Your task to perform on an android device: toggle sleep mode Image 0: 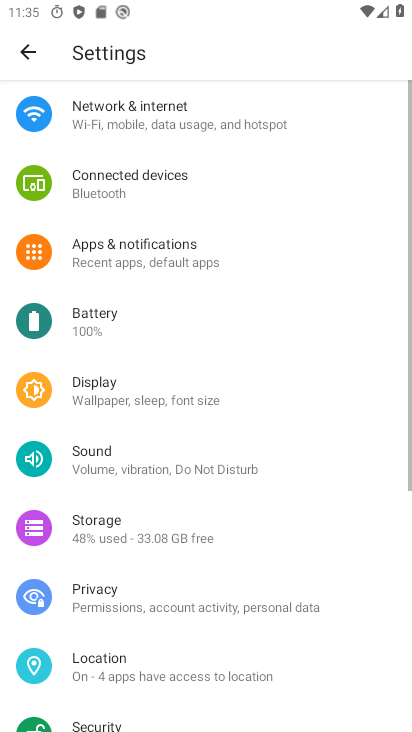
Step 0: click (172, 399)
Your task to perform on an android device: toggle sleep mode Image 1: 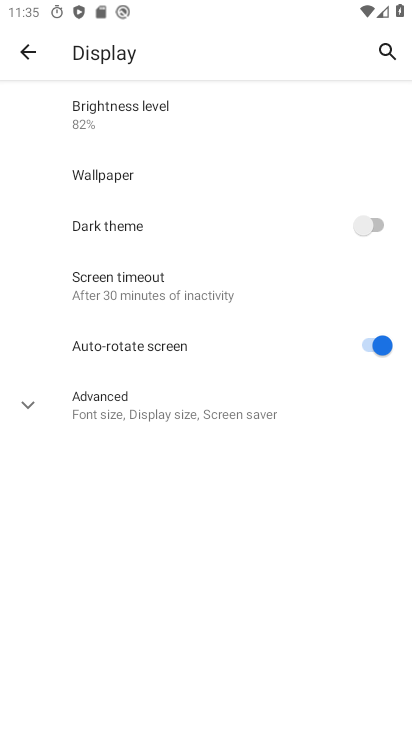
Step 1: click (241, 411)
Your task to perform on an android device: toggle sleep mode Image 2: 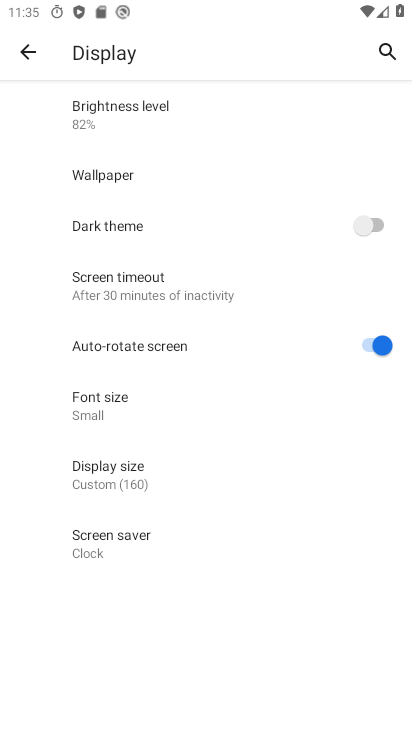
Step 2: task complete